Your task to perform on an android device: Go to battery settings Image 0: 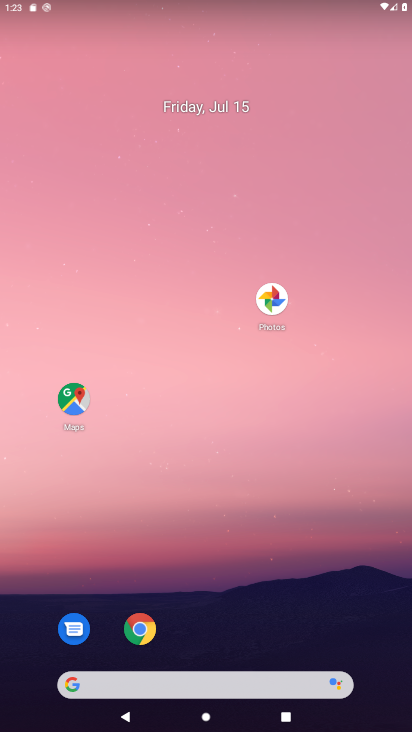
Step 0: drag from (251, 585) to (260, 232)
Your task to perform on an android device: Go to battery settings Image 1: 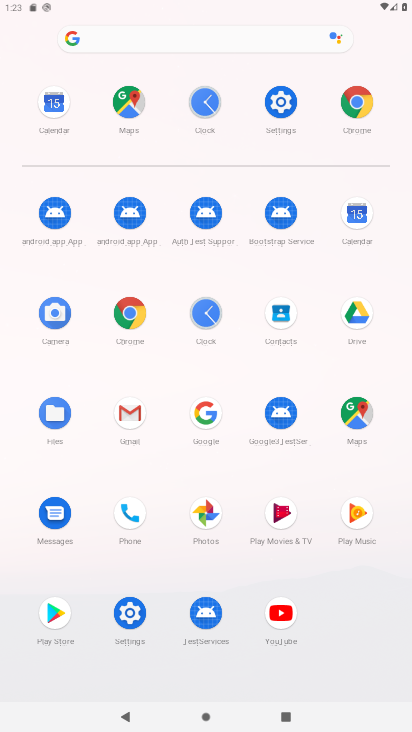
Step 1: click (285, 99)
Your task to perform on an android device: Go to battery settings Image 2: 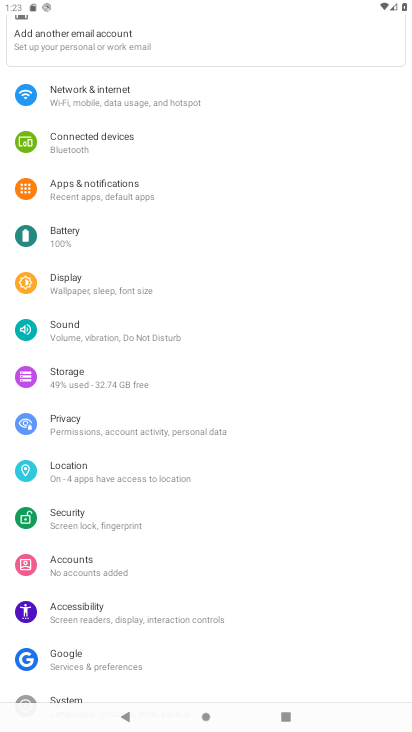
Step 2: click (59, 228)
Your task to perform on an android device: Go to battery settings Image 3: 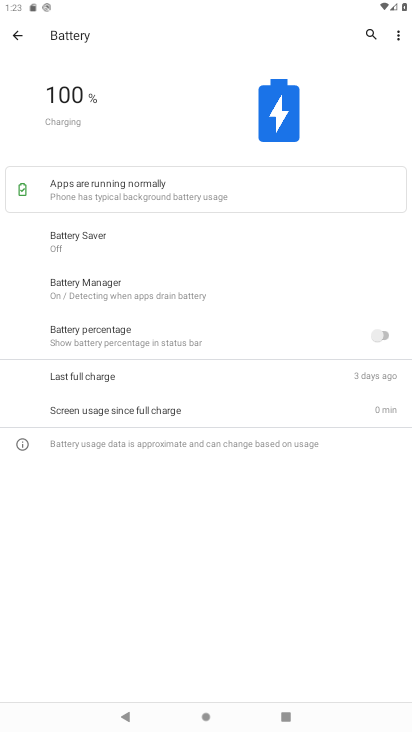
Step 3: task complete